Your task to perform on an android device: turn vacation reply on in the gmail app Image 0: 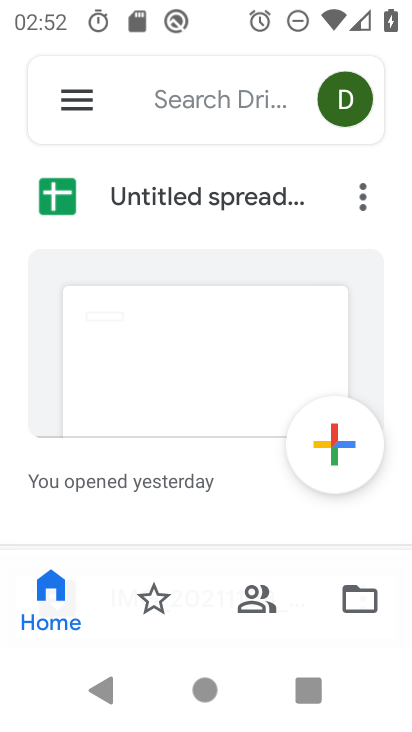
Step 0: press home button
Your task to perform on an android device: turn vacation reply on in the gmail app Image 1: 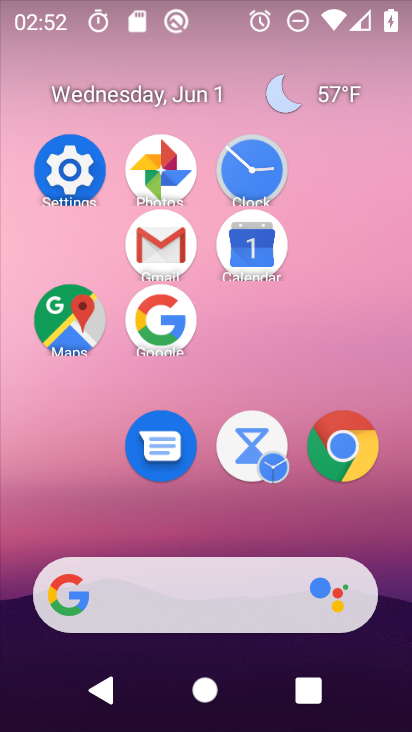
Step 1: click (160, 224)
Your task to perform on an android device: turn vacation reply on in the gmail app Image 2: 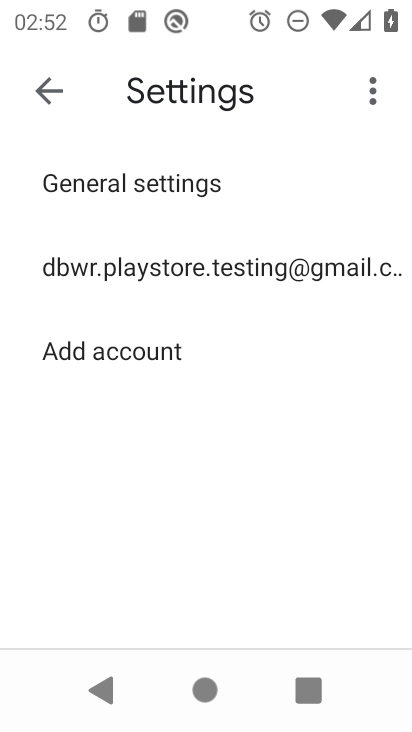
Step 2: click (62, 89)
Your task to perform on an android device: turn vacation reply on in the gmail app Image 3: 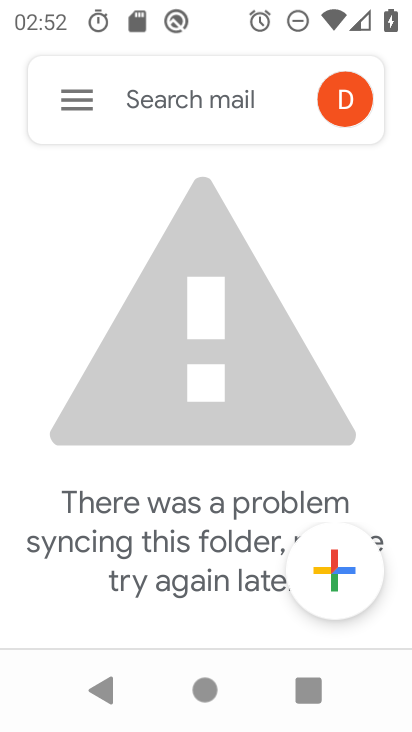
Step 3: click (63, 123)
Your task to perform on an android device: turn vacation reply on in the gmail app Image 4: 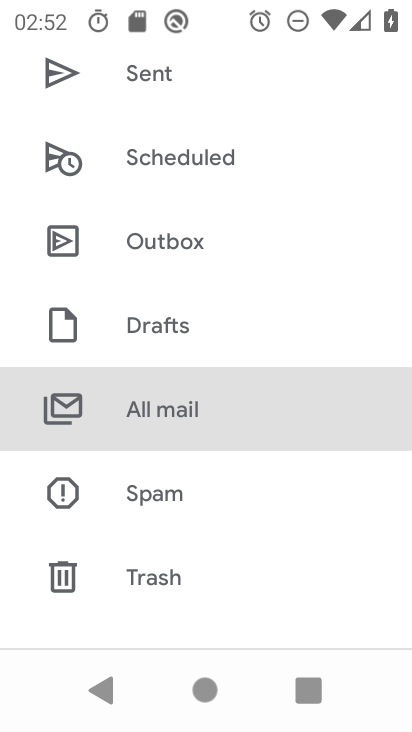
Step 4: drag from (198, 552) to (219, 131)
Your task to perform on an android device: turn vacation reply on in the gmail app Image 5: 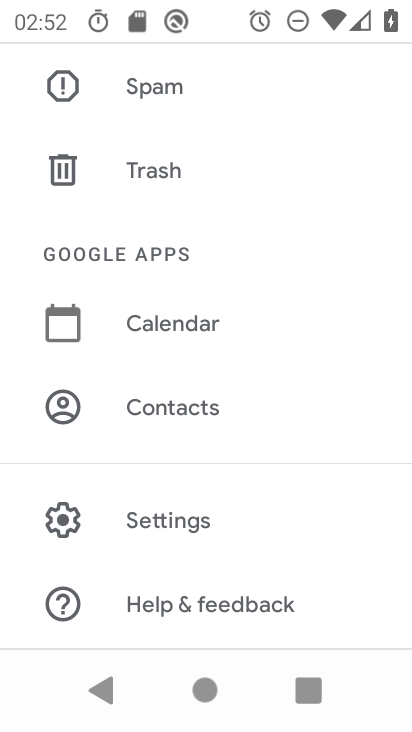
Step 5: click (267, 544)
Your task to perform on an android device: turn vacation reply on in the gmail app Image 6: 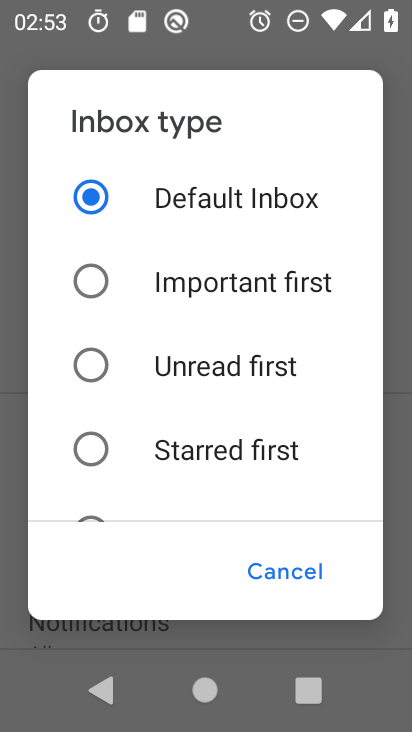
Step 6: click (315, 563)
Your task to perform on an android device: turn vacation reply on in the gmail app Image 7: 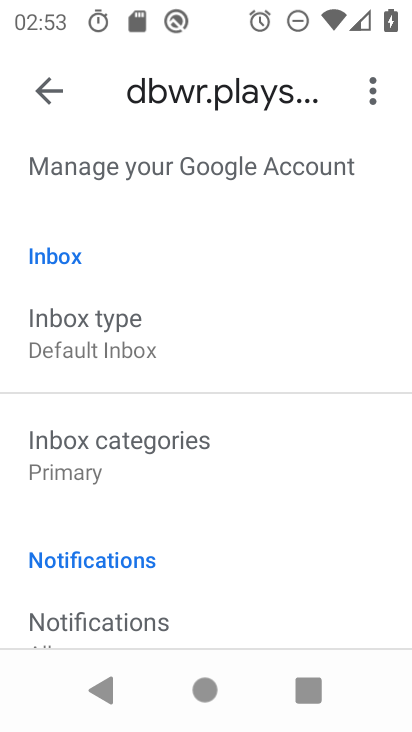
Step 7: drag from (303, 532) to (279, 68)
Your task to perform on an android device: turn vacation reply on in the gmail app Image 8: 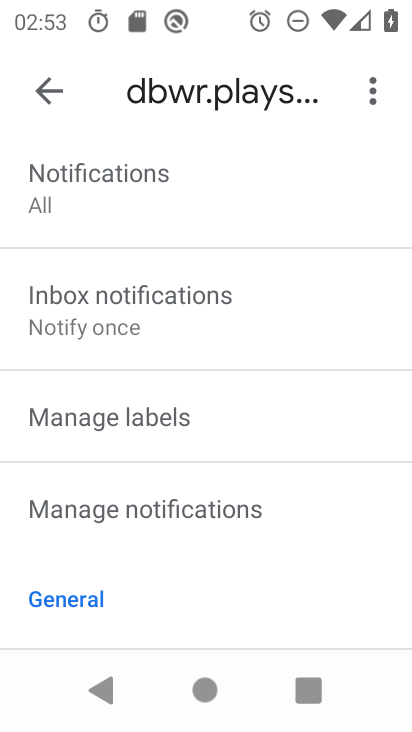
Step 8: drag from (199, 565) to (311, 96)
Your task to perform on an android device: turn vacation reply on in the gmail app Image 9: 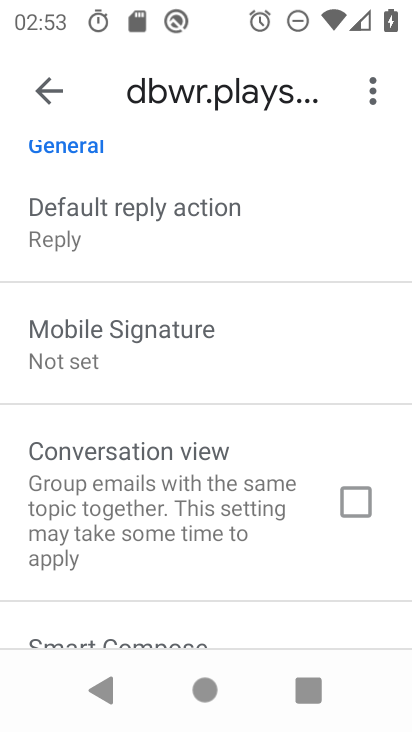
Step 9: drag from (259, 572) to (285, 125)
Your task to perform on an android device: turn vacation reply on in the gmail app Image 10: 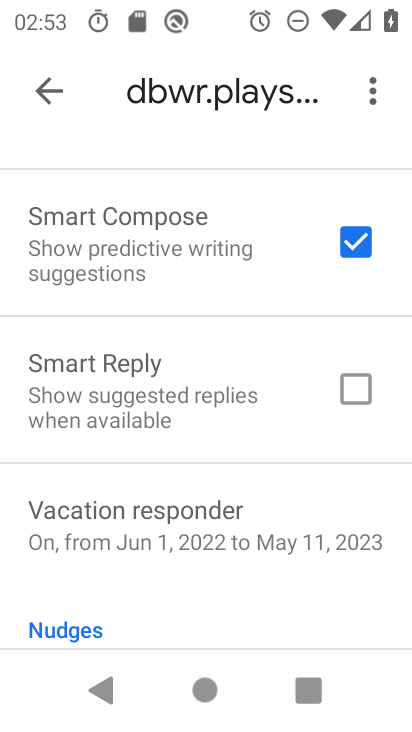
Step 10: click (260, 533)
Your task to perform on an android device: turn vacation reply on in the gmail app Image 11: 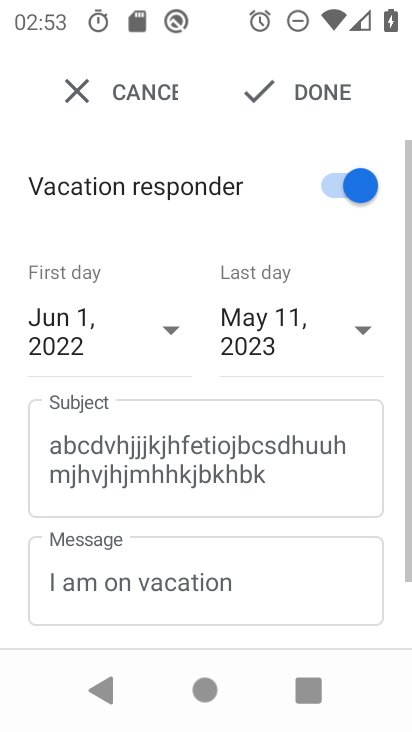
Step 11: click (325, 106)
Your task to perform on an android device: turn vacation reply on in the gmail app Image 12: 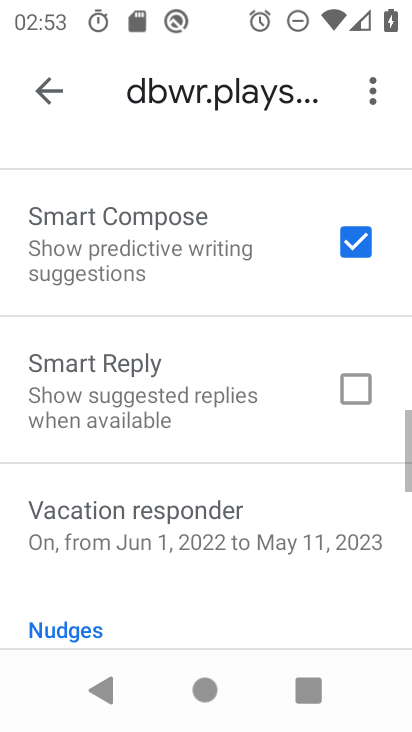
Step 12: task complete